Your task to perform on an android device: turn off location Image 0: 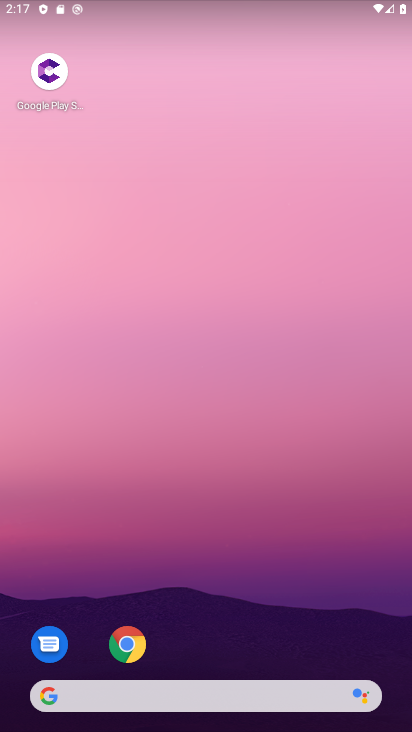
Step 0: press home button
Your task to perform on an android device: turn off location Image 1: 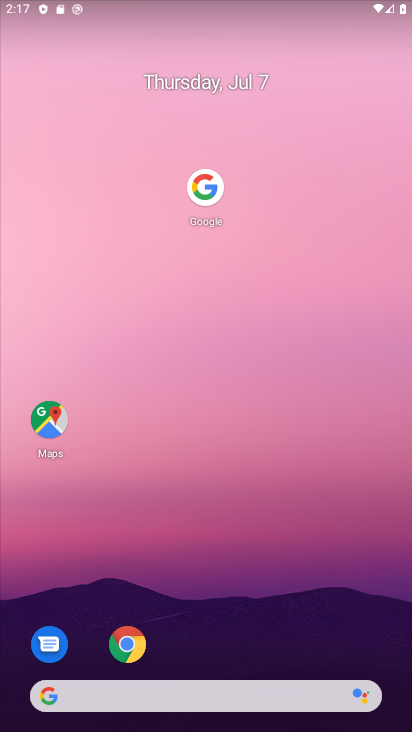
Step 1: drag from (203, 693) to (350, 82)
Your task to perform on an android device: turn off location Image 2: 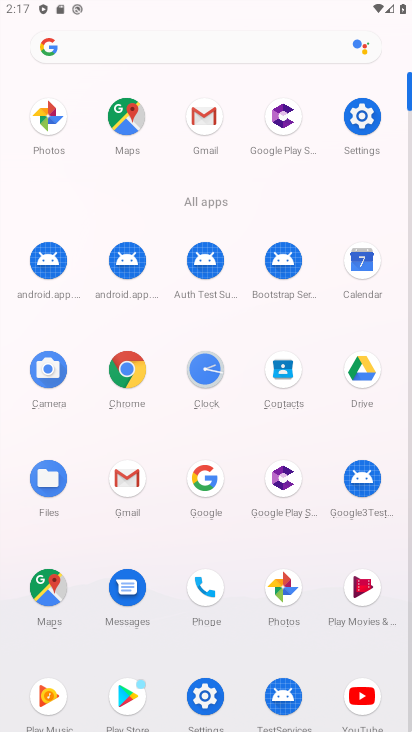
Step 2: click (370, 117)
Your task to perform on an android device: turn off location Image 3: 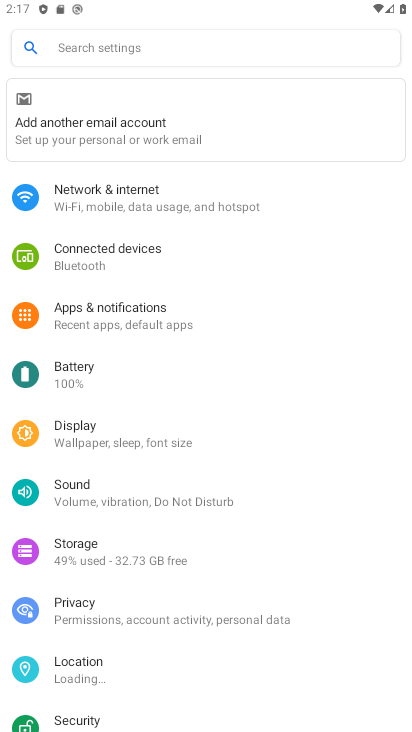
Step 3: click (81, 667)
Your task to perform on an android device: turn off location Image 4: 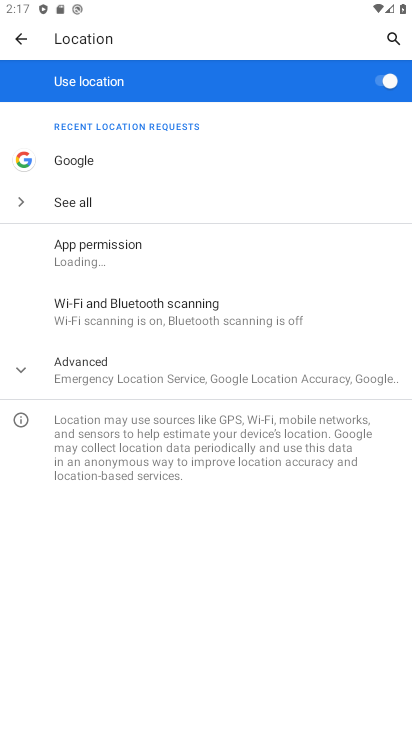
Step 4: click (383, 79)
Your task to perform on an android device: turn off location Image 5: 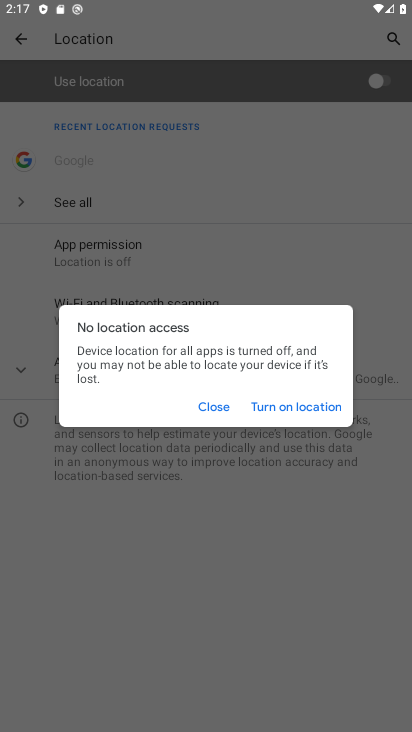
Step 5: click (214, 408)
Your task to perform on an android device: turn off location Image 6: 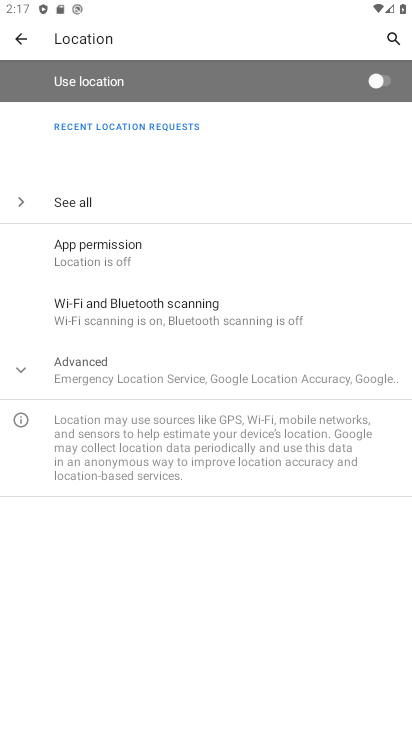
Step 6: task complete